Your task to perform on an android device: see creations saved in the google photos Image 0: 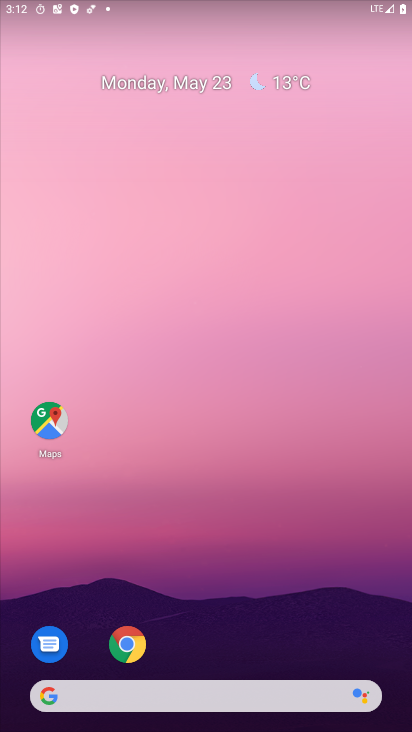
Step 0: drag from (223, 666) to (151, 0)
Your task to perform on an android device: see creations saved in the google photos Image 1: 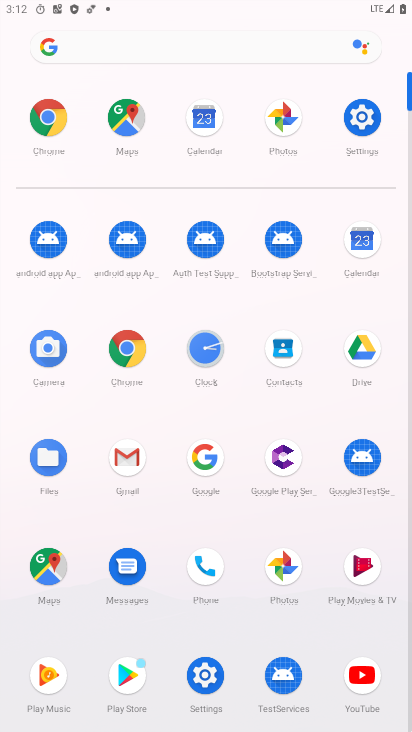
Step 1: click (285, 567)
Your task to perform on an android device: see creations saved in the google photos Image 2: 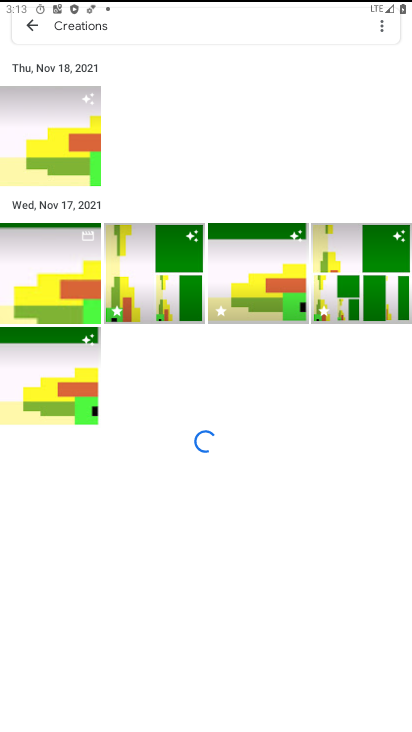
Step 2: task complete